Your task to perform on an android device: delete the emails in spam in the gmail app Image 0: 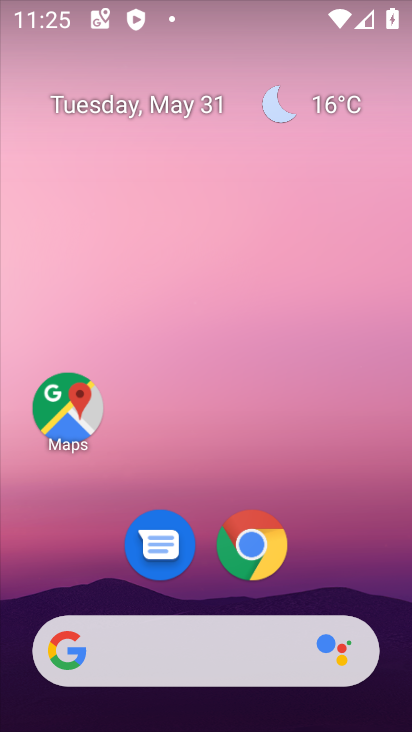
Step 0: drag from (127, 607) to (208, 215)
Your task to perform on an android device: delete the emails in spam in the gmail app Image 1: 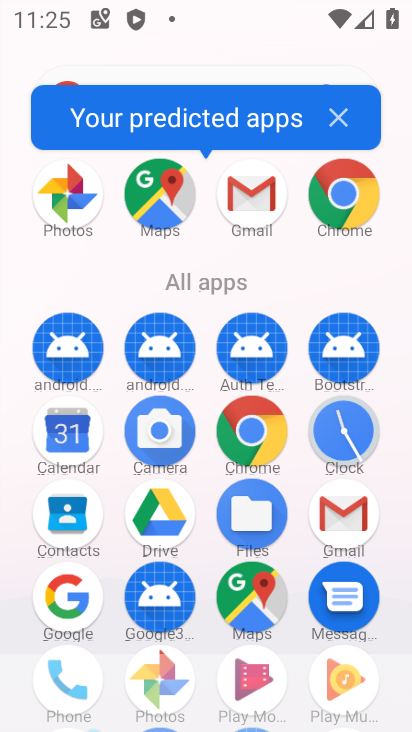
Step 1: click (337, 525)
Your task to perform on an android device: delete the emails in spam in the gmail app Image 2: 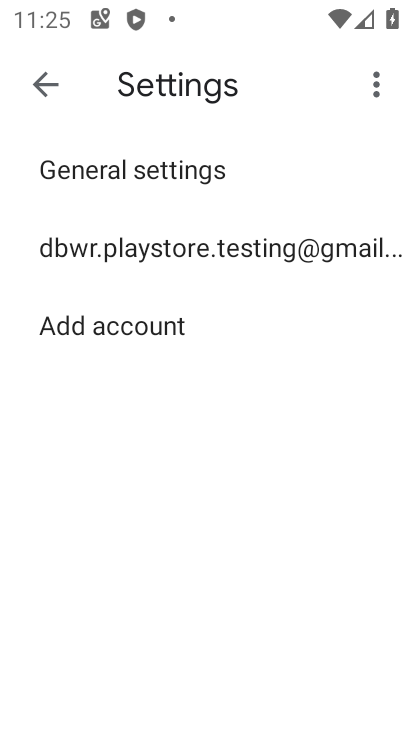
Step 2: click (38, 87)
Your task to perform on an android device: delete the emails in spam in the gmail app Image 3: 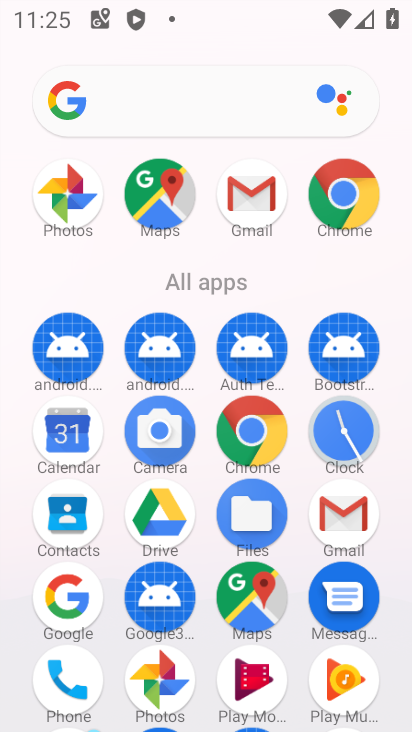
Step 3: click (339, 520)
Your task to perform on an android device: delete the emails in spam in the gmail app Image 4: 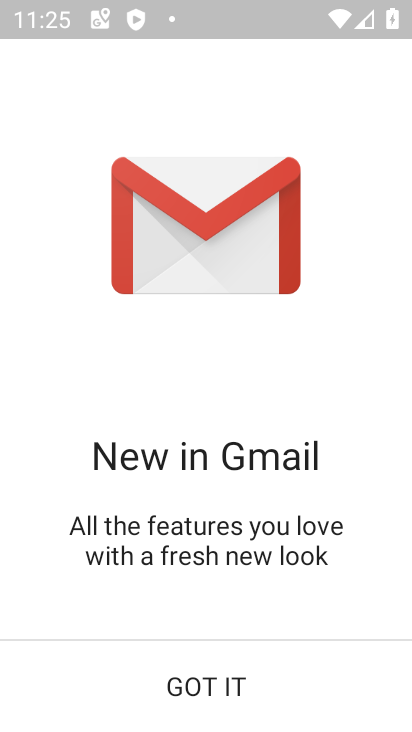
Step 4: click (241, 670)
Your task to perform on an android device: delete the emails in spam in the gmail app Image 5: 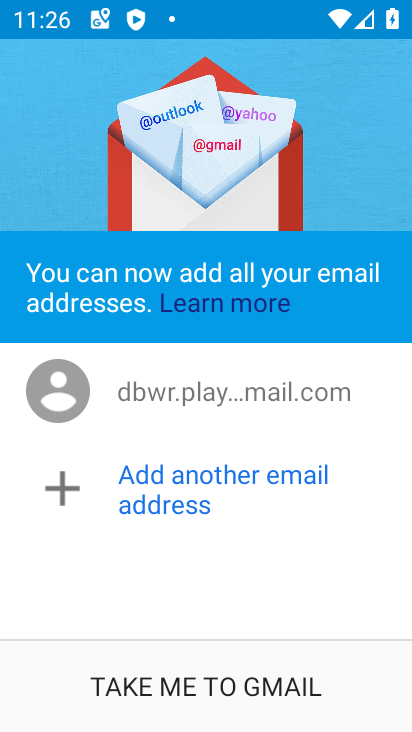
Step 5: click (259, 676)
Your task to perform on an android device: delete the emails in spam in the gmail app Image 6: 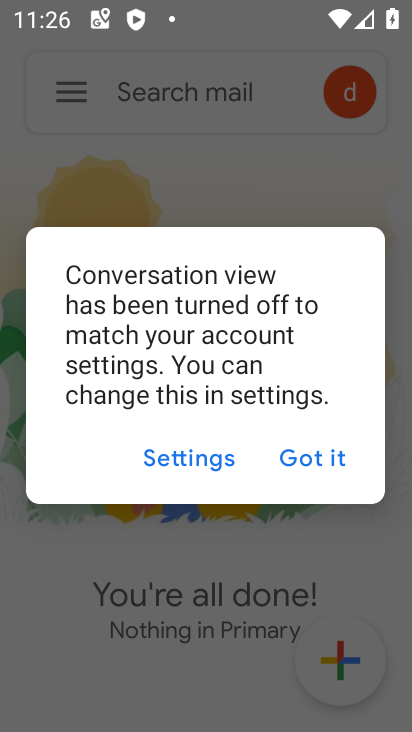
Step 6: click (343, 466)
Your task to perform on an android device: delete the emails in spam in the gmail app Image 7: 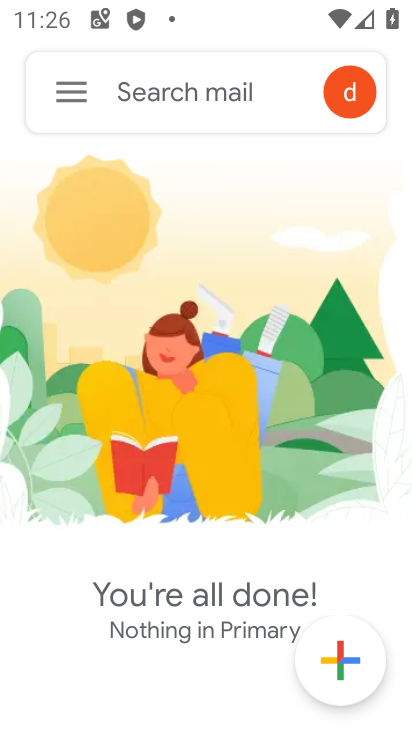
Step 7: click (113, 80)
Your task to perform on an android device: delete the emails in spam in the gmail app Image 8: 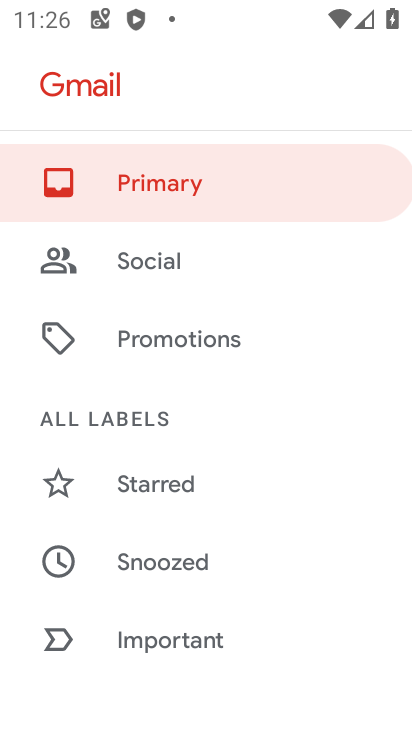
Step 8: drag from (184, 630) to (247, 187)
Your task to perform on an android device: delete the emails in spam in the gmail app Image 9: 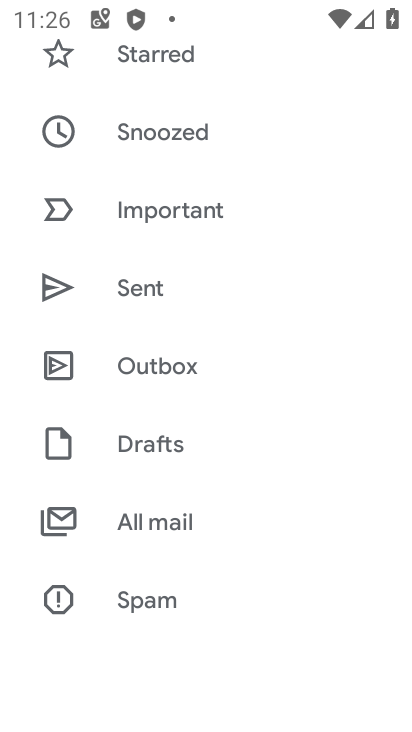
Step 9: click (202, 594)
Your task to perform on an android device: delete the emails in spam in the gmail app Image 10: 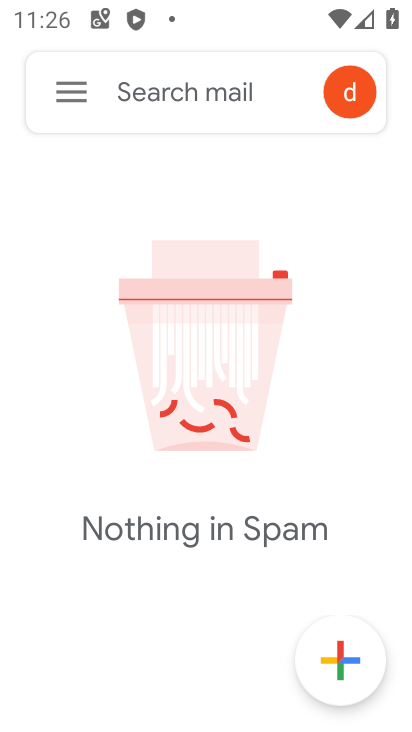
Step 10: task complete